Your task to perform on an android device: Find coffee shops on Maps Image 0: 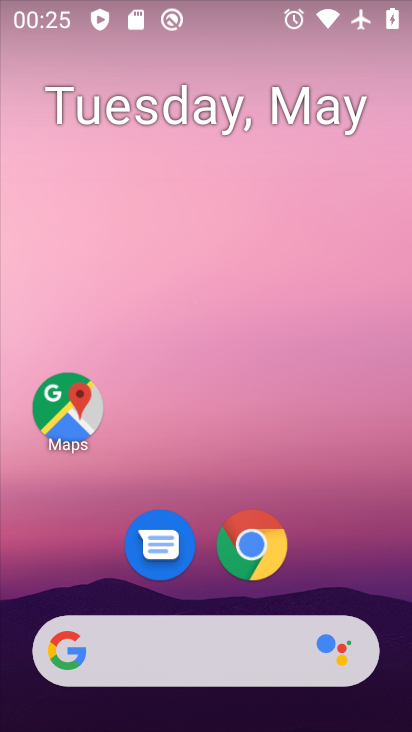
Step 0: drag from (326, 565) to (411, 32)
Your task to perform on an android device: Find coffee shops on Maps Image 1: 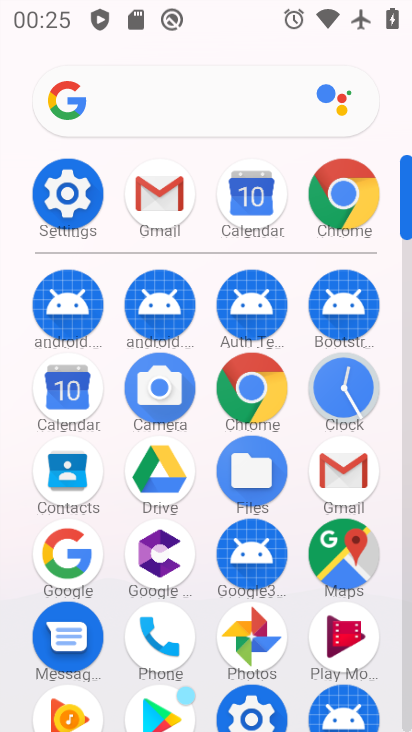
Step 1: click (328, 534)
Your task to perform on an android device: Find coffee shops on Maps Image 2: 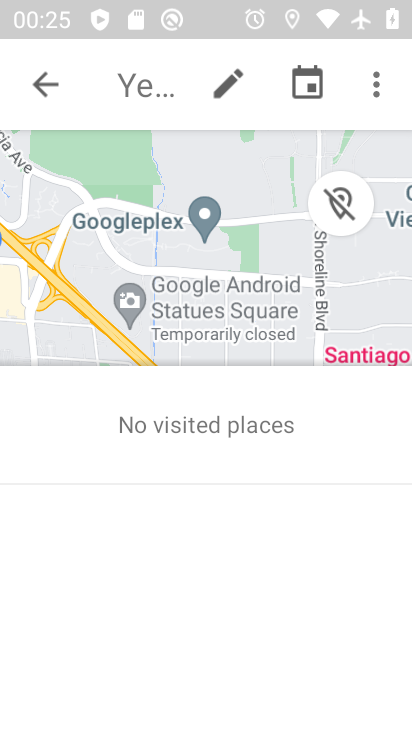
Step 2: click (39, 80)
Your task to perform on an android device: Find coffee shops on Maps Image 3: 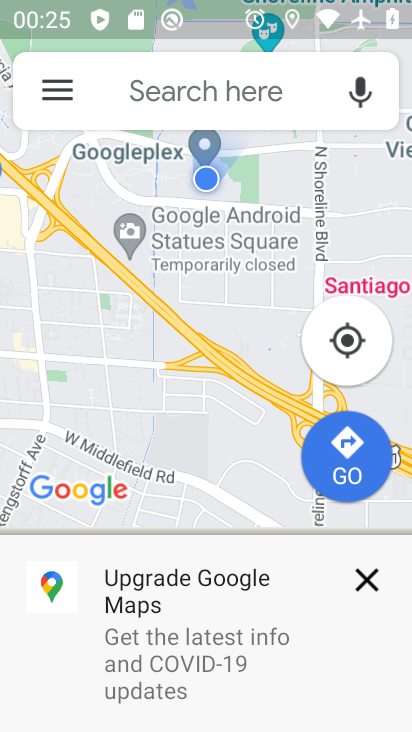
Step 3: click (166, 92)
Your task to perform on an android device: Find coffee shops on Maps Image 4: 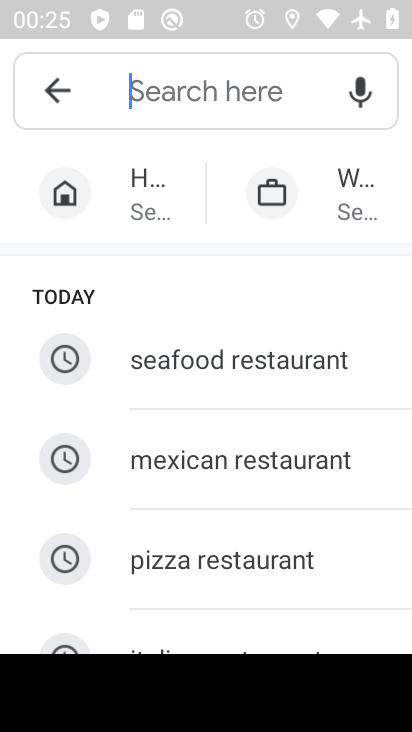
Step 4: type "coffee shops"
Your task to perform on an android device: Find coffee shops on Maps Image 5: 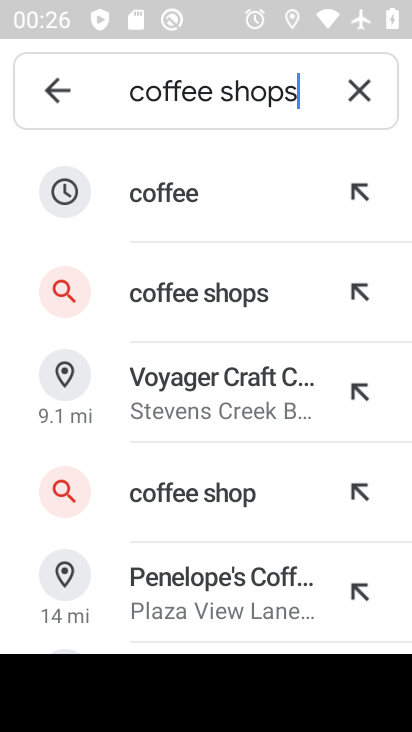
Step 5: click (218, 279)
Your task to perform on an android device: Find coffee shops on Maps Image 6: 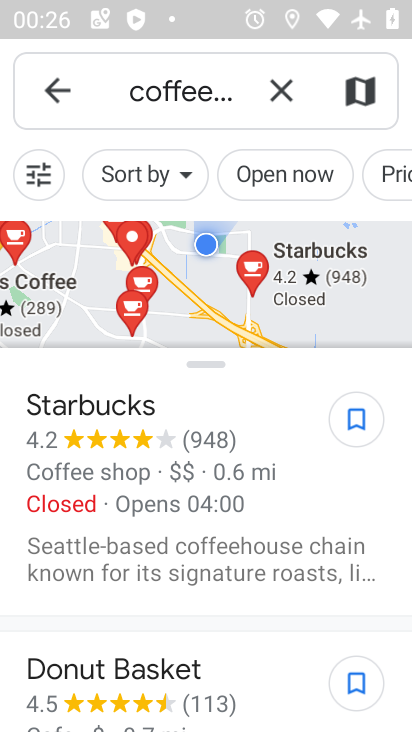
Step 6: task complete